Your task to perform on an android device: Open internet settings Image 0: 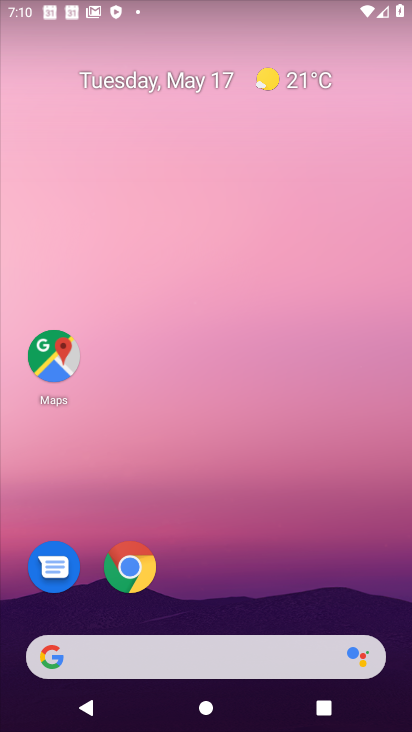
Step 0: drag from (262, 515) to (167, 123)
Your task to perform on an android device: Open internet settings Image 1: 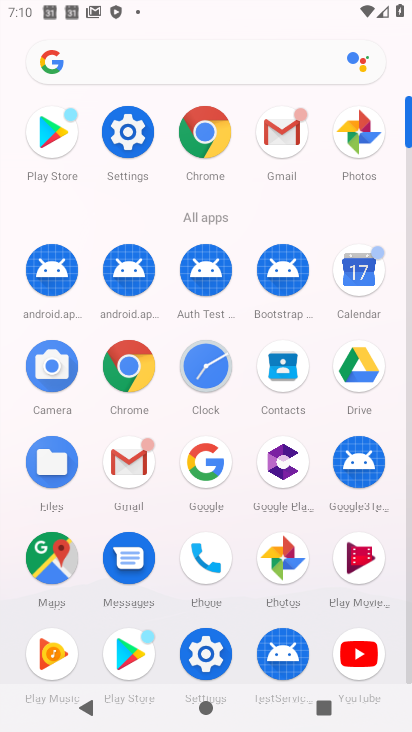
Step 1: click (126, 129)
Your task to perform on an android device: Open internet settings Image 2: 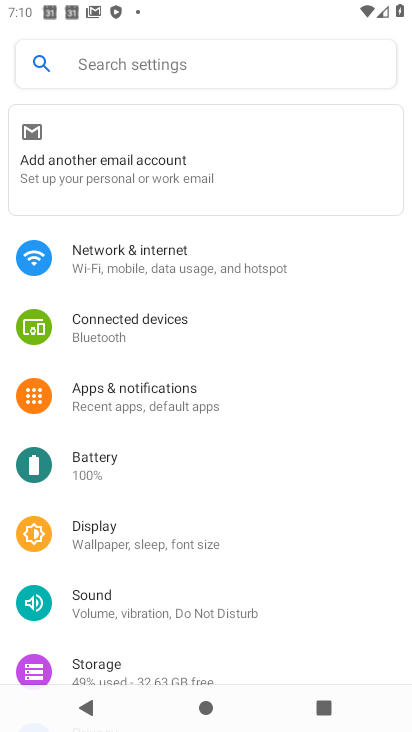
Step 2: click (116, 242)
Your task to perform on an android device: Open internet settings Image 3: 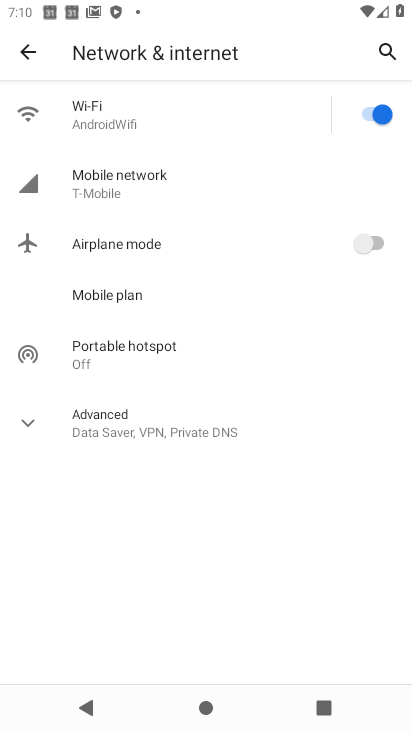
Step 3: task complete